Your task to perform on an android device: see creations saved in the google photos Image 0: 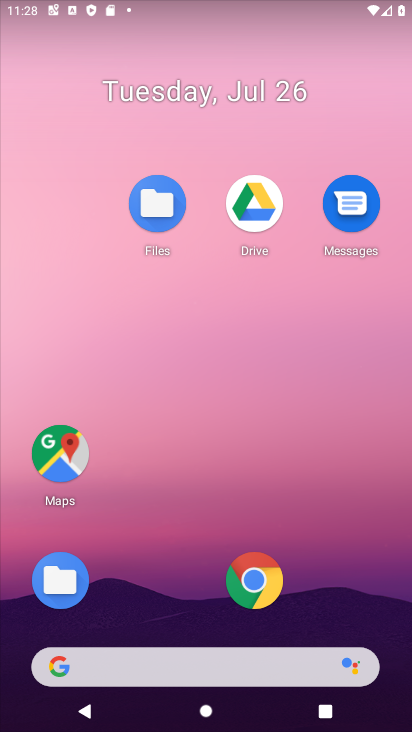
Step 0: drag from (141, 606) to (298, 188)
Your task to perform on an android device: see creations saved in the google photos Image 1: 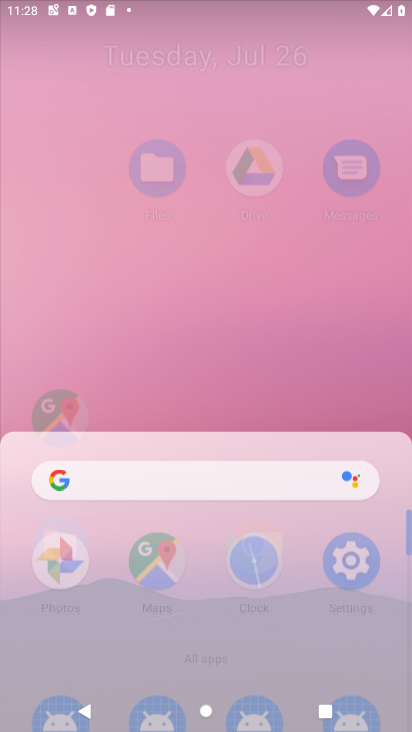
Step 1: click (298, 188)
Your task to perform on an android device: see creations saved in the google photos Image 2: 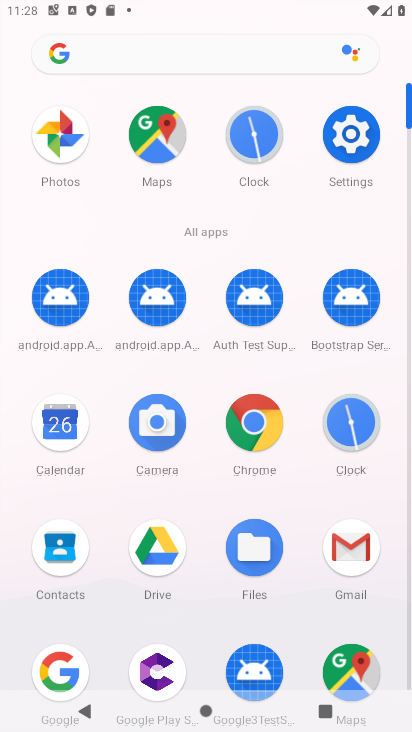
Step 2: click (59, 145)
Your task to perform on an android device: see creations saved in the google photos Image 3: 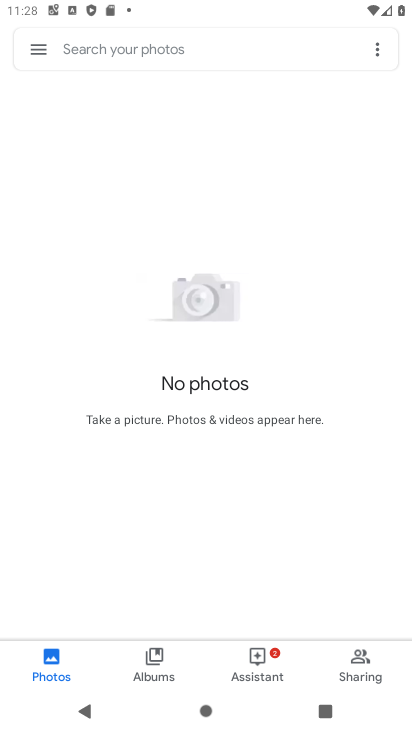
Step 3: task complete